Your task to perform on an android device: Go to calendar. Show me events next week Image 0: 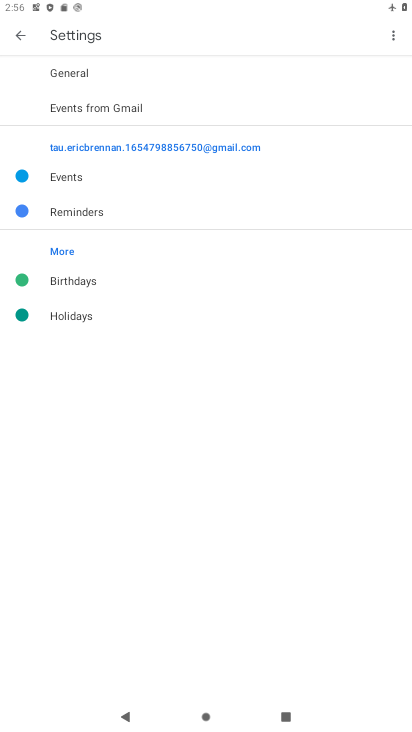
Step 0: press home button
Your task to perform on an android device: Go to calendar. Show me events next week Image 1: 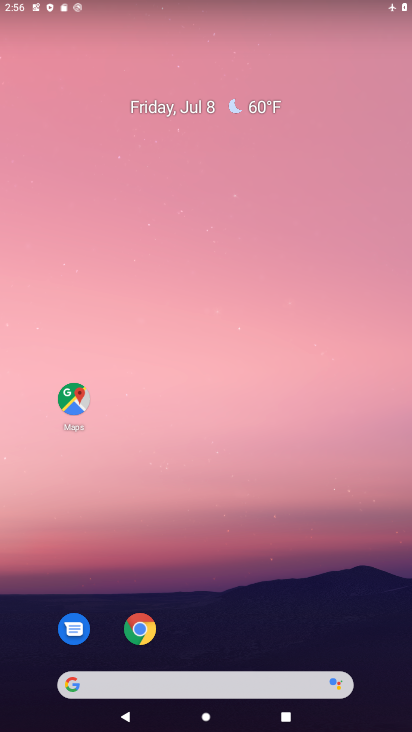
Step 1: drag from (205, 645) to (235, 197)
Your task to perform on an android device: Go to calendar. Show me events next week Image 2: 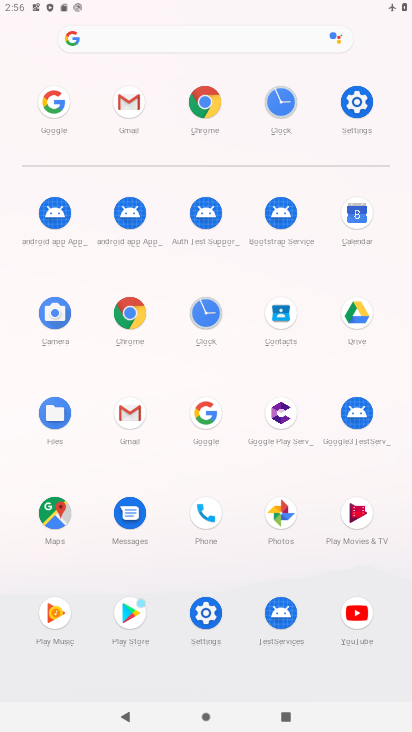
Step 2: click (368, 211)
Your task to perform on an android device: Go to calendar. Show me events next week Image 3: 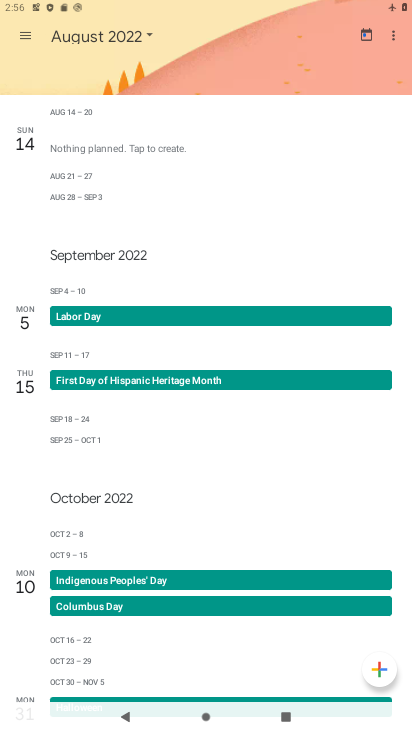
Step 3: click (140, 37)
Your task to perform on an android device: Go to calendar. Show me events next week Image 4: 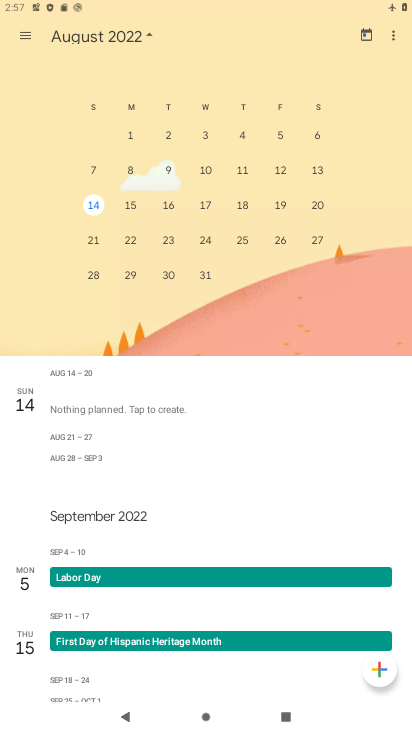
Step 4: drag from (102, 184) to (399, 187)
Your task to perform on an android device: Go to calendar. Show me events next week Image 5: 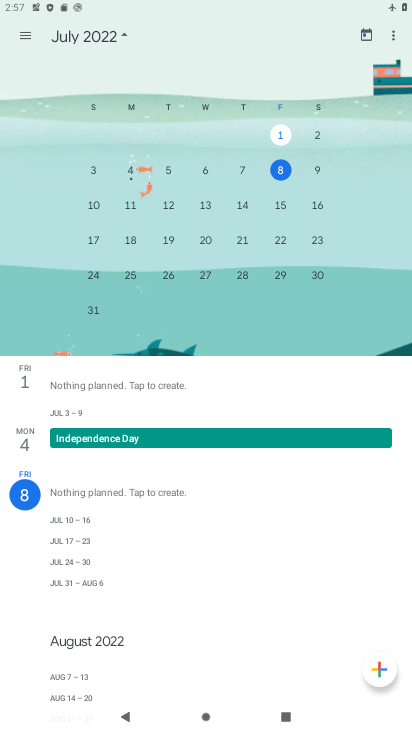
Step 5: click (103, 195)
Your task to perform on an android device: Go to calendar. Show me events next week Image 6: 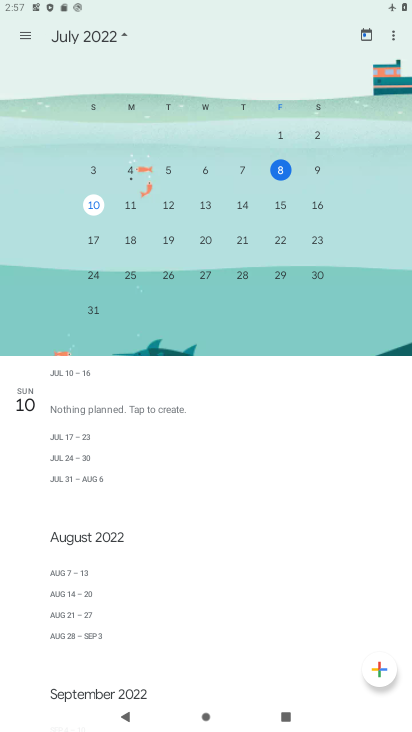
Step 6: task complete